Your task to perform on an android device: Open Google Chrome and open the bookmarks view Image 0: 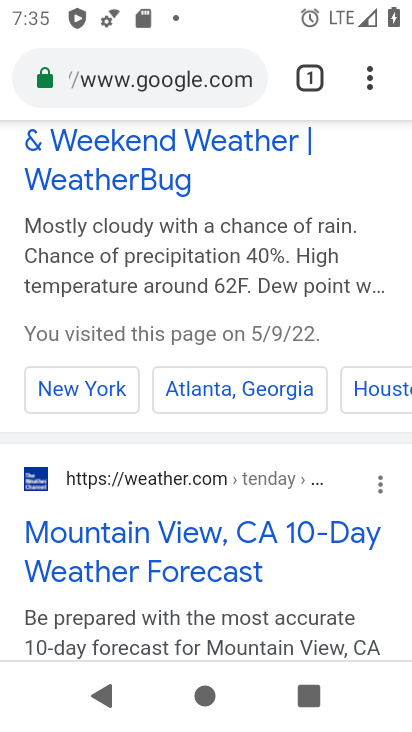
Step 0: press home button
Your task to perform on an android device: Open Google Chrome and open the bookmarks view Image 1: 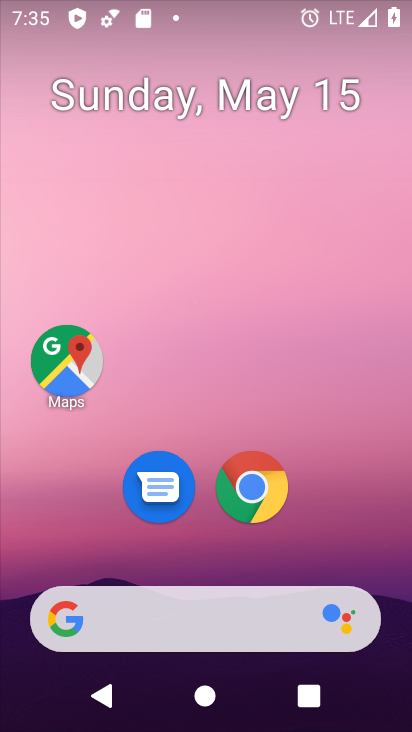
Step 1: drag from (334, 514) to (380, 172)
Your task to perform on an android device: Open Google Chrome and open the bookmarks view Image 2: 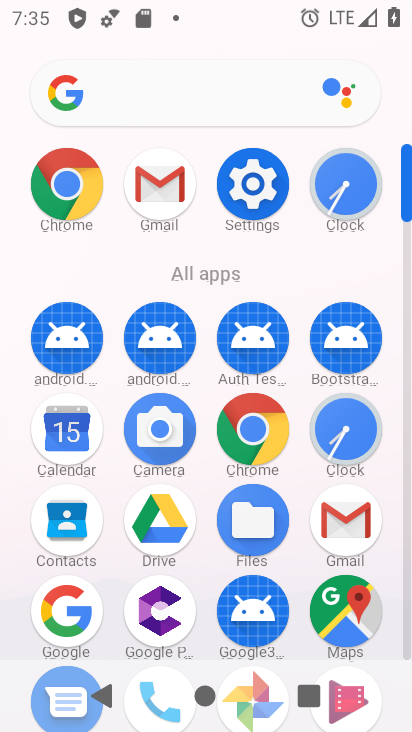
Step 2: click (250, 434)
Your task to perform on an android device: Open Google Chrome and open the bookmarks view Image 3: 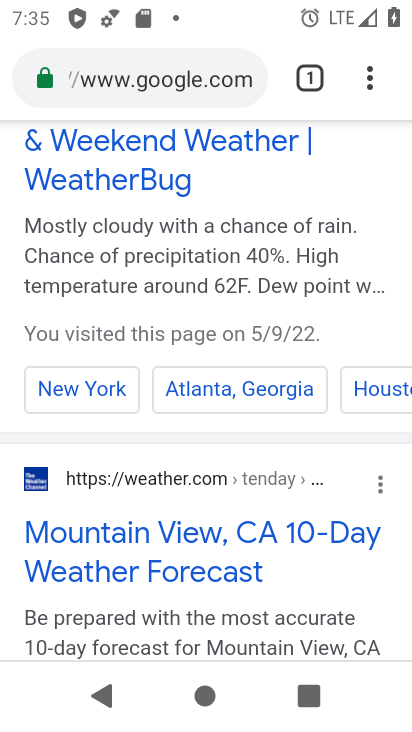
Step 3: task complete